Your task to perform on an android device: Go to Reddit.com Image 0: 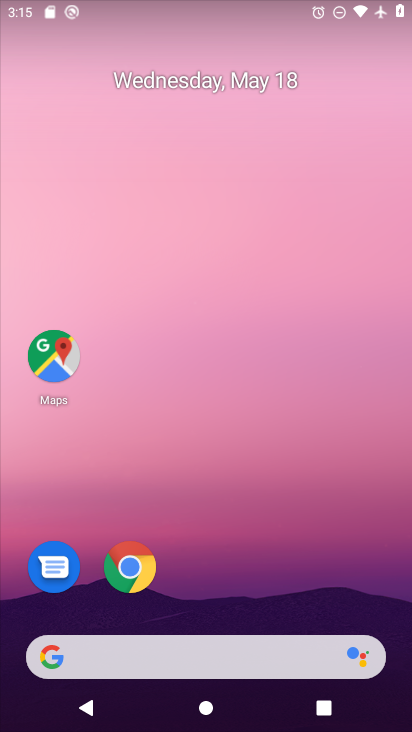
Step 0: drag from (268, 623) to (277, 216)
Your task to perform on an android device: Go to Reddit.com Image 1: 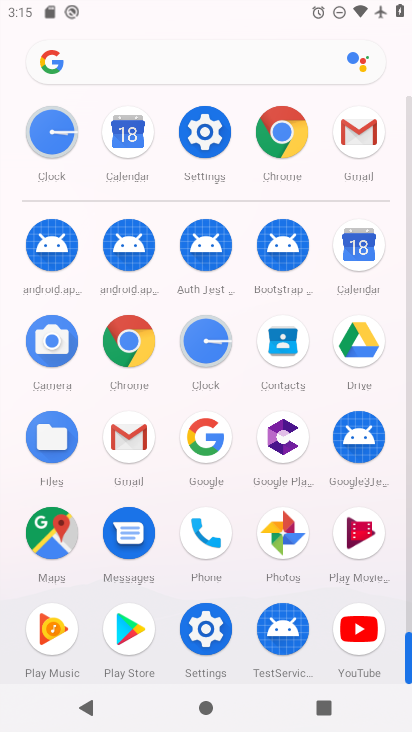
Step 1: click (297, 123)
Your task to perform on an android device: Go to Reddit.com Image 2: 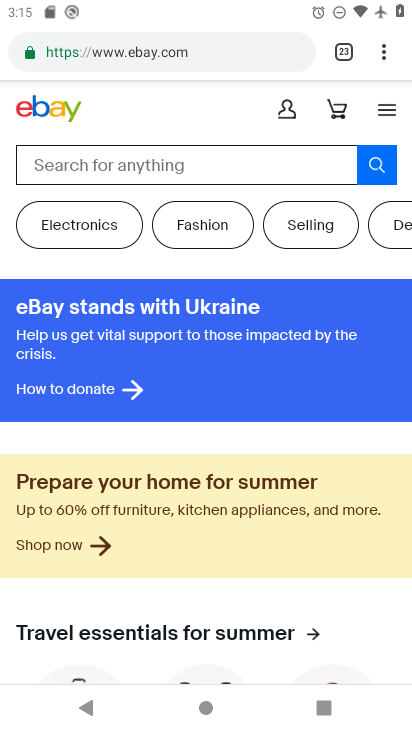
Step 2: click (377, 53)
Your task to perform on an android device: Go to Reddit.com Image 3: 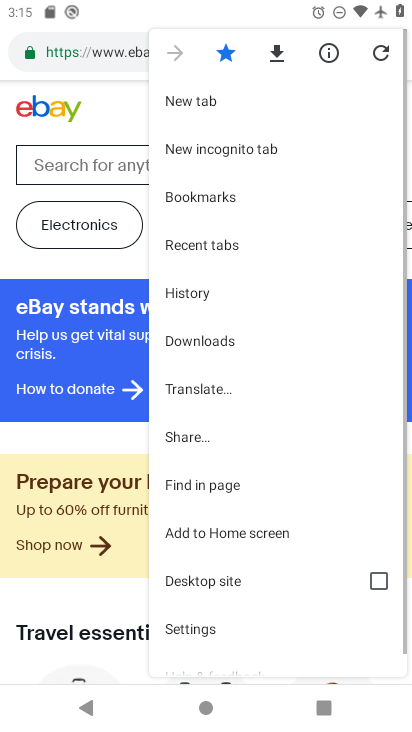
Step 3: click (183, 88)
Your task to perform on an android device: Go to Reddit.com Image 4: 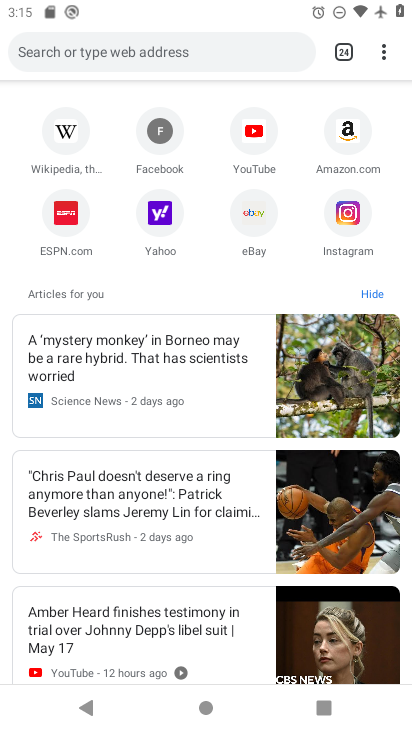
Step 4: click (165, 49)
Your task to perform on an android device: Go to Reddit.com Image 5: 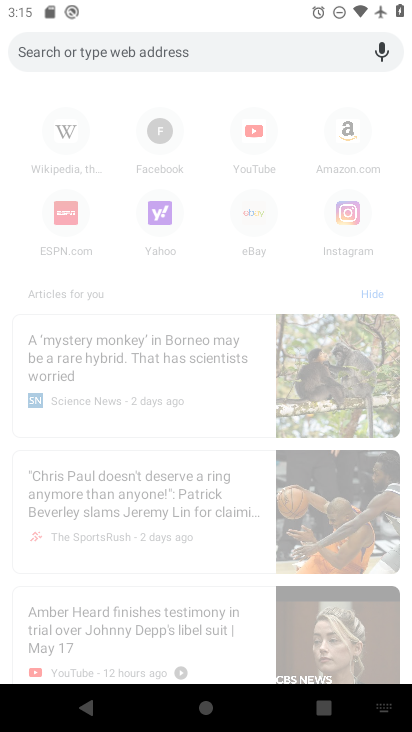
Step 5: type "the recent news?"
Your task to perform on an android device: Go to Reddit.com Image 6: 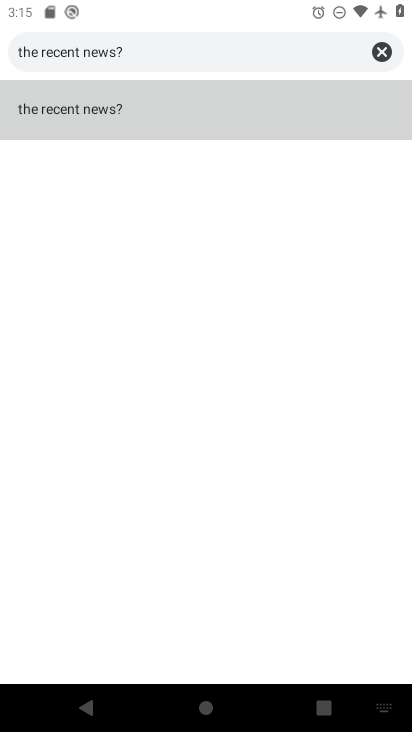
Step 6: click (380, 44)
Your task to perform on an android device: Go to Reddit.com Image 7: 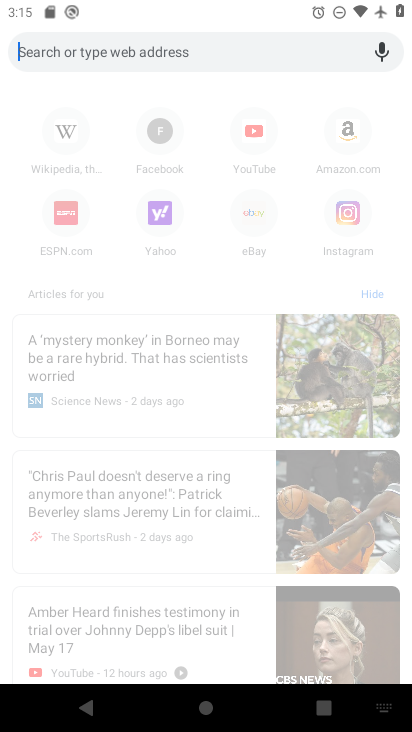
Step 7: click (183, 47)
Your task to perform on an android device: Go to Reddit.com Image 8: 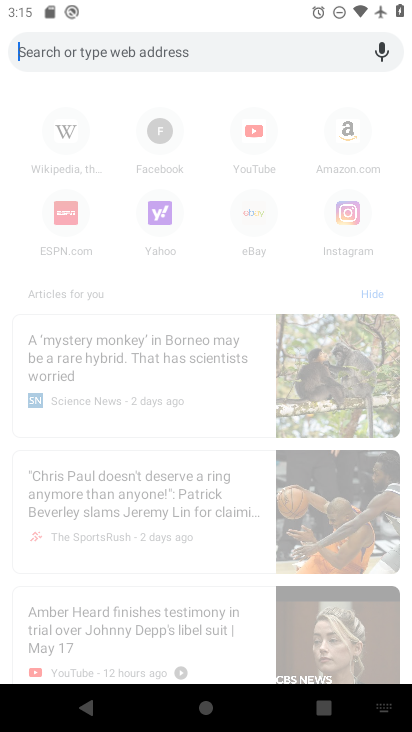
Step 8: type " Reddit.com"
Your task to perform on an android device: Go to Reddit.com Image 9: 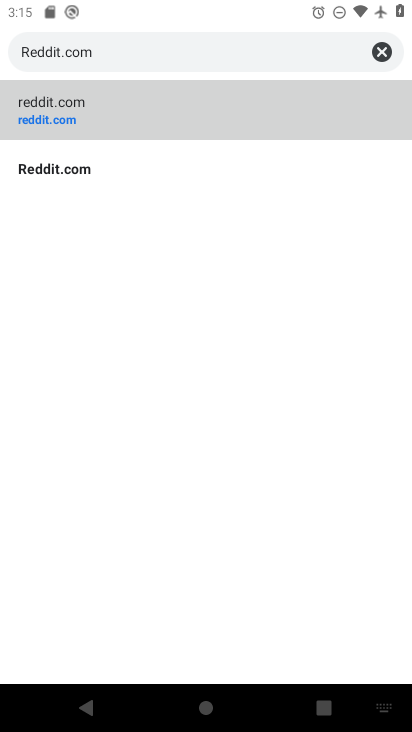
Step 9: click (63, 104)
Your task to perform on an android device: Go to Reddit.com Image 10: 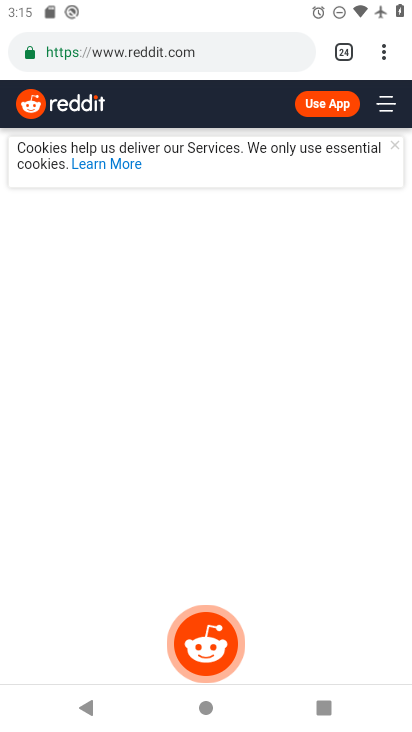
Step 10: task complete